Your task to perform on an android device: toggle sleep mode Image 0: 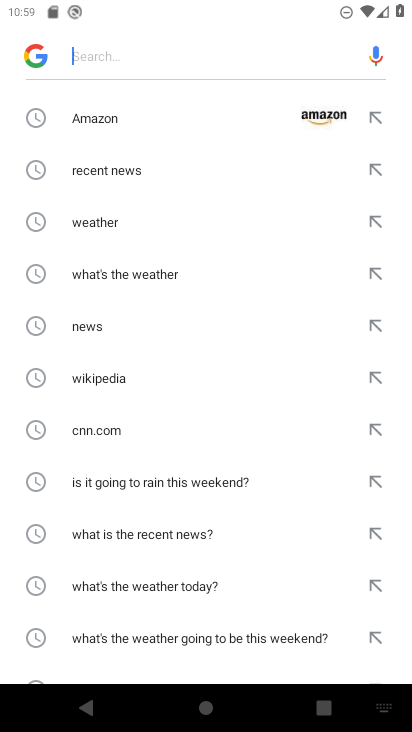
Step 0: press back button
Your task to perform on an android device: toggle sleep mode Image 1: 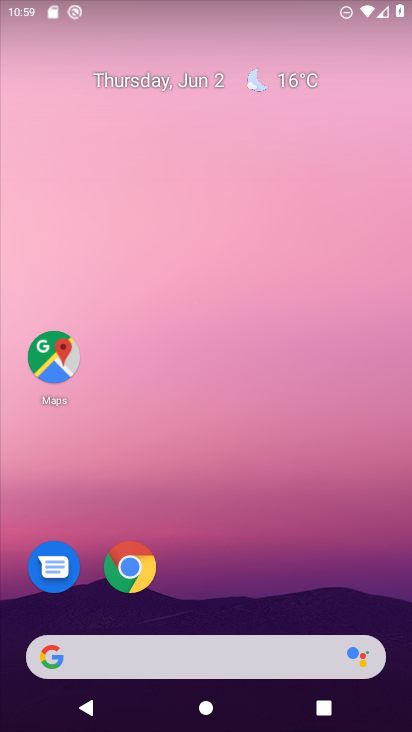
Step 1: task complete